Your task to perform on an android device: turn notification dots off Image 0: 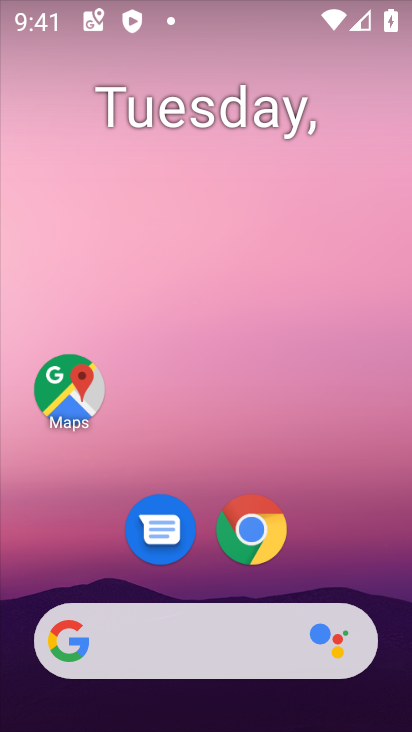
Step 0: drag from (243, 681) to (235, 101)
Your task to perform on an android device: turn notification dots off Image 1: 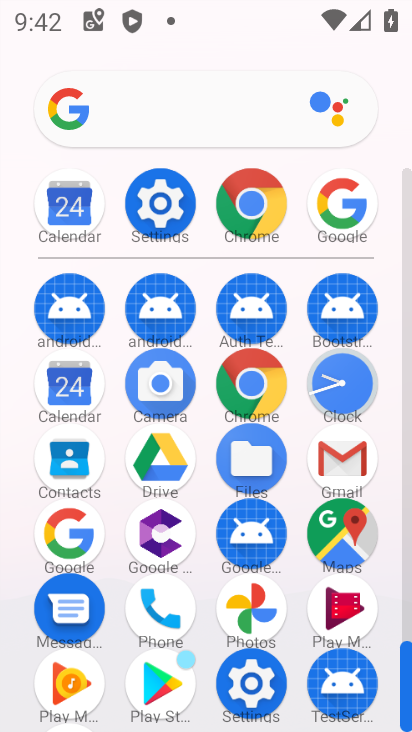
Step 1: click (149, 203)
Your task to perform on an android device: turn notification dots off Image 2: 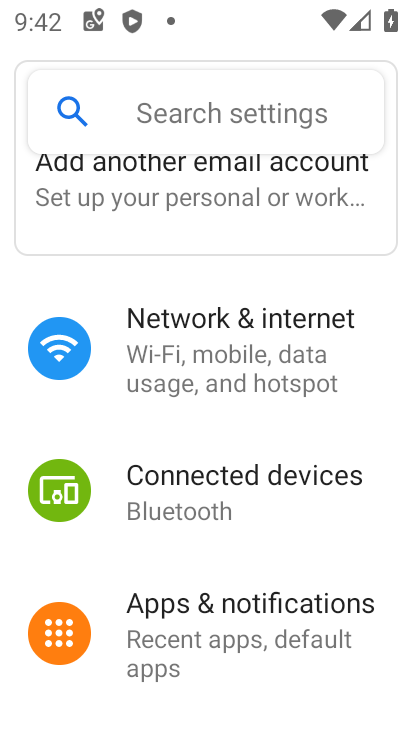
Step 2: click (261, 652)
Your task to perform on an android device: turn notification dots off Image 3: 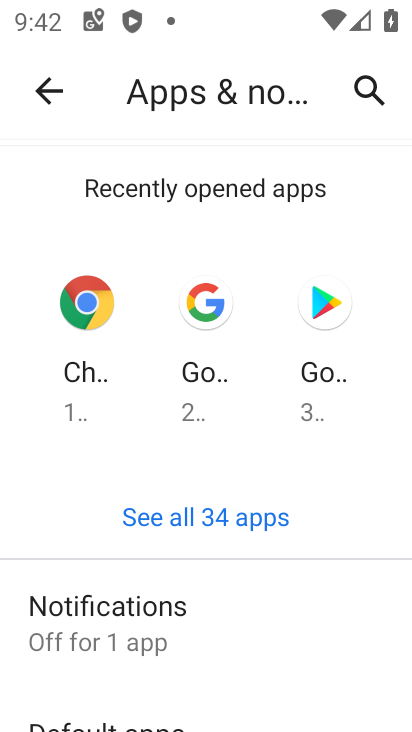
Step 3: drag from (158, 587) to (181, 68)
Your task to perform on an android device: turn notification dots off Image 4: 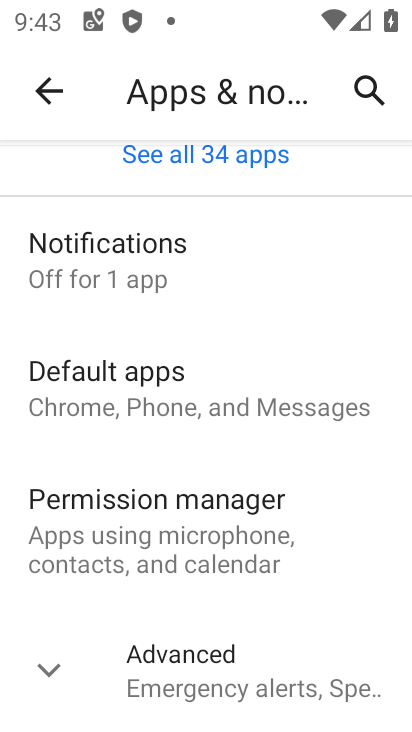
Step 4: click (180, 258)
Your task to perform on an android device: turn notification dots off Image 5: 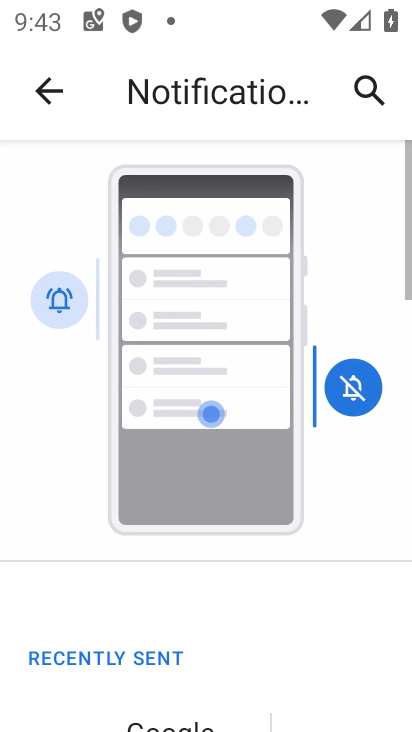
Step 5: drag from (174, 503) to (319, 5)
Your task to perform on an android device: turn notification dots off Image 6: 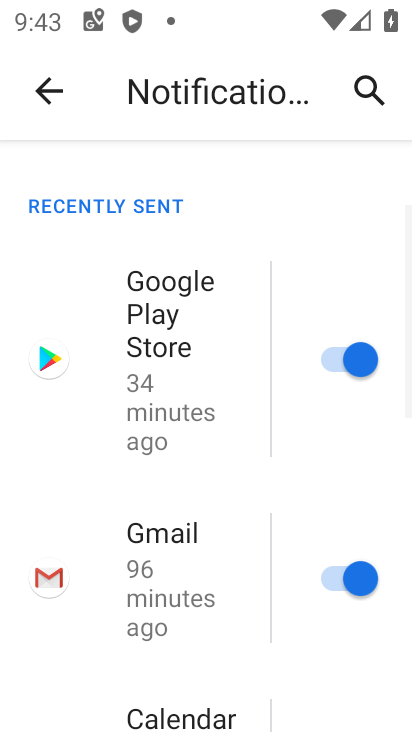
Step 6: drag from (190, 506) to (320, 0)
Your task to perform on an android device: turn notification dots off Image 7: 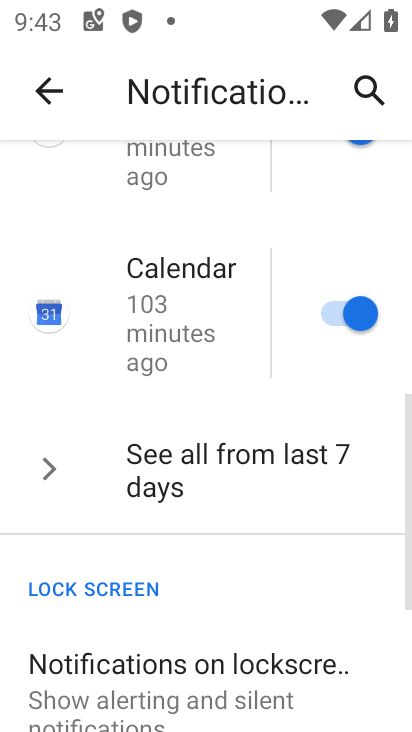
Step 7: drag from (222, 559) to (329, 16)
Your task to perform on an android device: turn notification dots off Image 8: 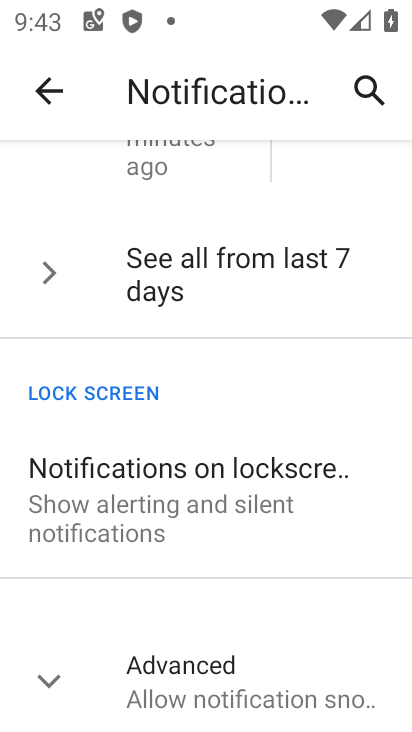
Step 8: click (209, 681)
Your task to perform on an android device: turn notification dots off Image 9: 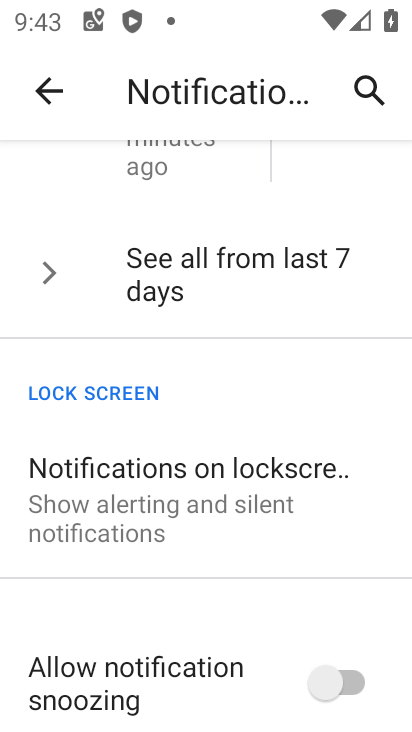
Step 9: drag from (216, 586) to (354, 162)
Your task to perform on an android device: turn notification dots off Image 10: 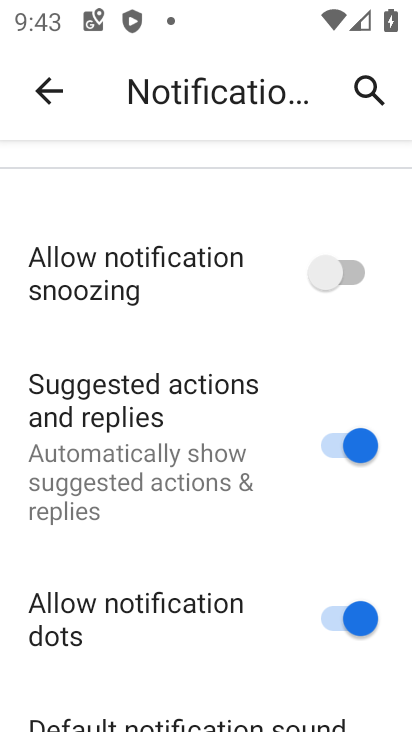
Step 10: drag from (162, 618) to (215, 265)
Your task to perform on an android device: turn notification dots off Image 11: 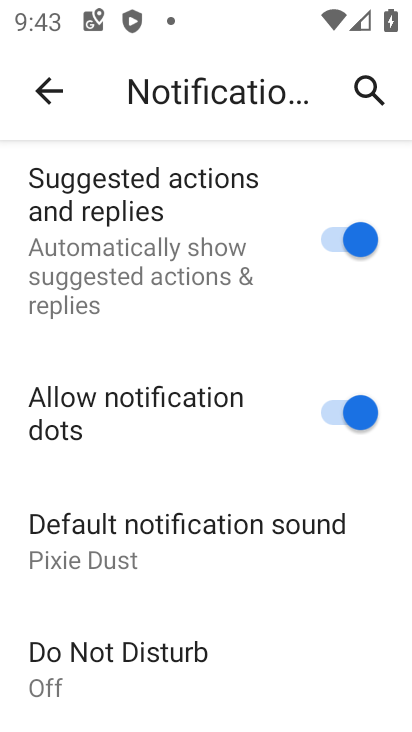
Step 11: click (328, 403)
Your task to perform on an android device: turn notification dots off Image 12: 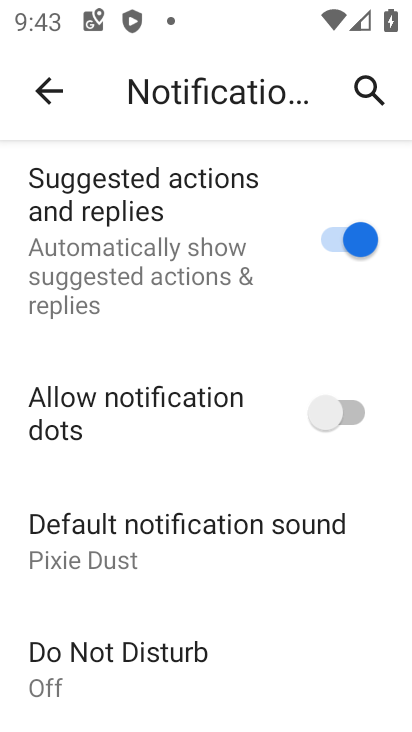
Step 12: task complete